Your task to perform on an android device: change timer sound Image 0: 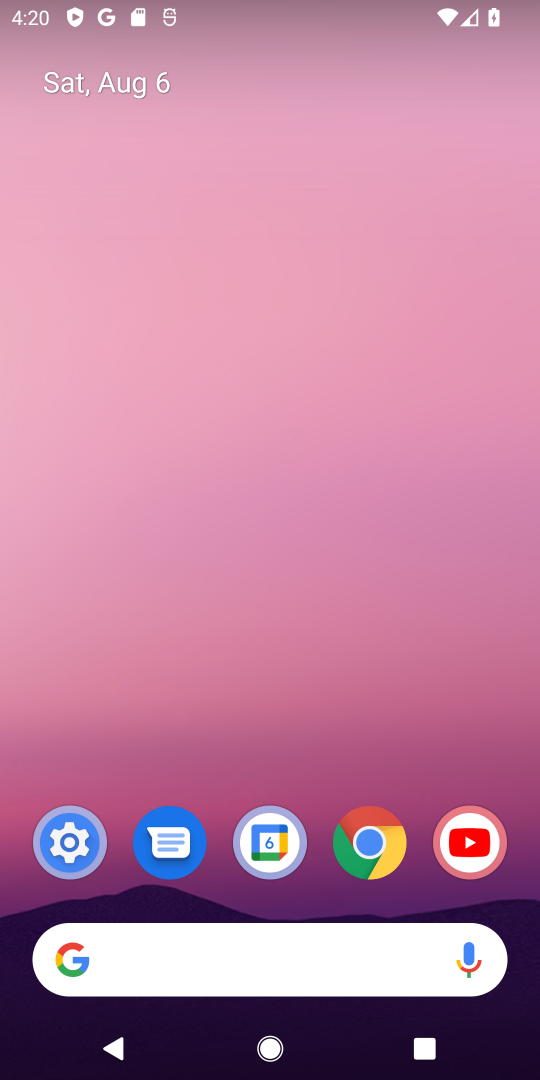
Step 0: click (62, 825)
Your task to perform on an android device: change timer sound Image 1: 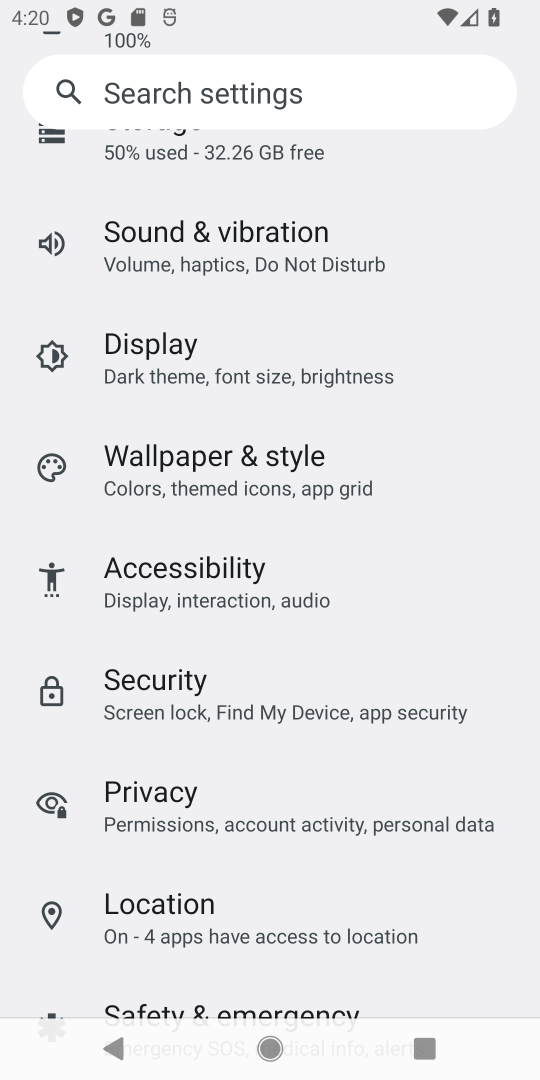
Step 1: click (229, 238)
Your task to perform on an android device: change timer sound Image 2: 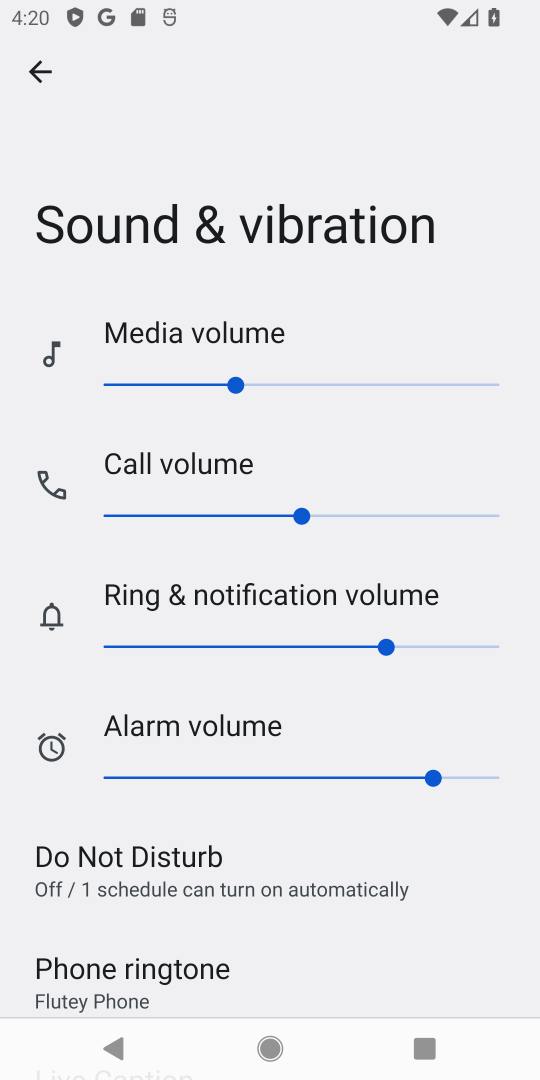
Step 2: task complete